Your task to perform on an android device: Open Chrome and go to settings Image 0: 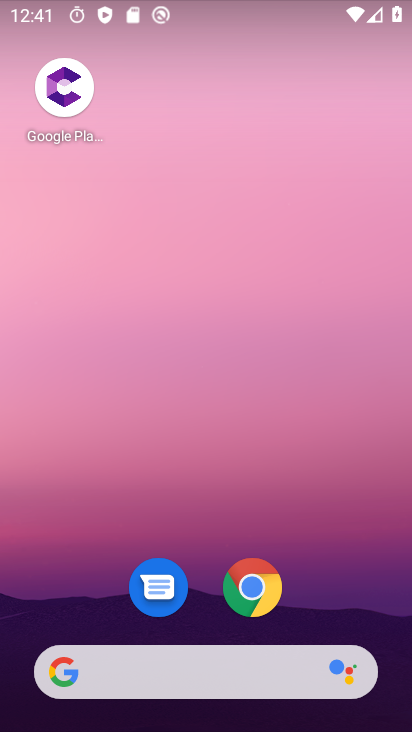
Step 0: click (249, 584)
Your task to perform on an android device: Open Chrome and go to settings Image 1: 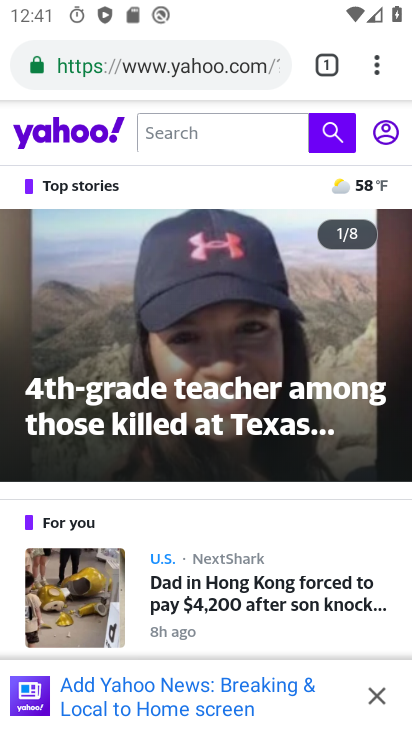
Step 1: click (378, 71)
Your task to perform on an android device: Open Chrome and go to settings Image 2: 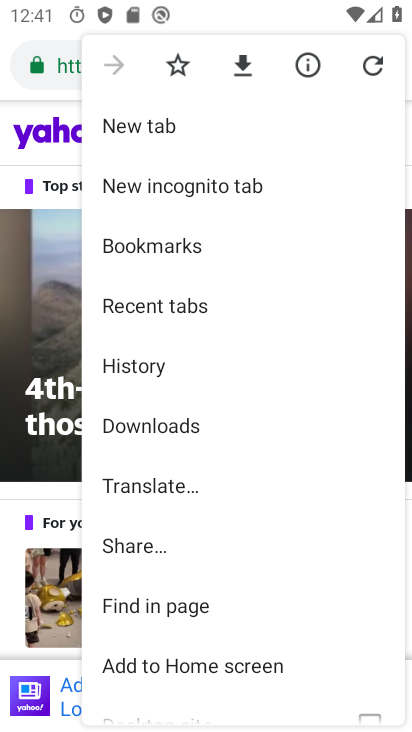
Step 2: drag from (176, 645) to (173, 213)
Your task to perform on an android device: Open Chrome and go to settings Image 3: 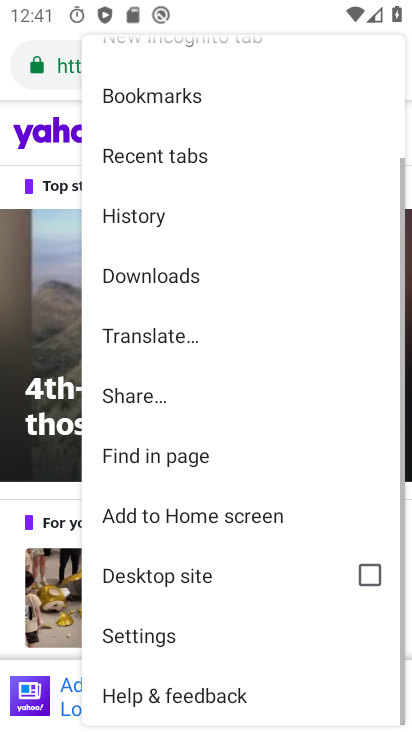
Step 3: click (147, 639)
Your task to perform on an android device: Open Chrome and go to settings Image 4: 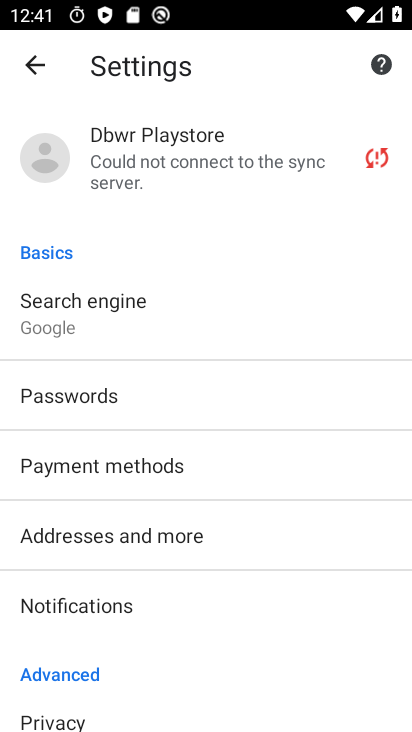
Step 4: task complete